Your task to perform on an android device: Open sound settings Image 0: 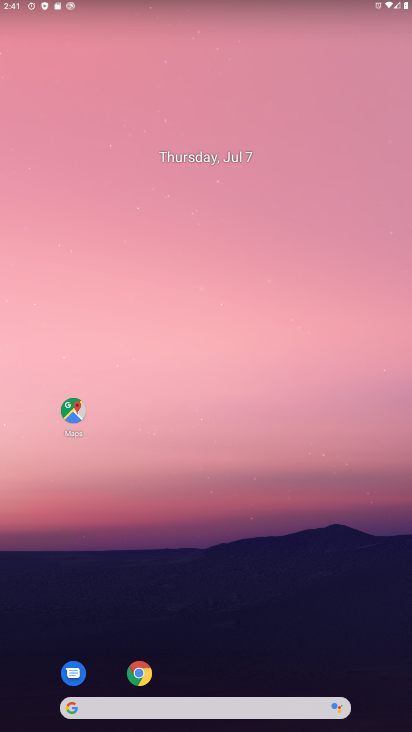
Step 0: drag from (232, 662) to (396, 10)
Your task to perform on an android device: Open sound settings Image 1: 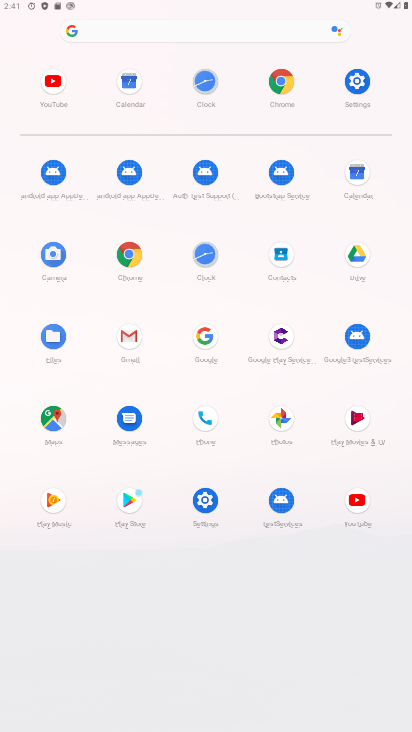
Step 1: click (208, 492)
Your task to perform on an android device: Open sound settings Image 2: 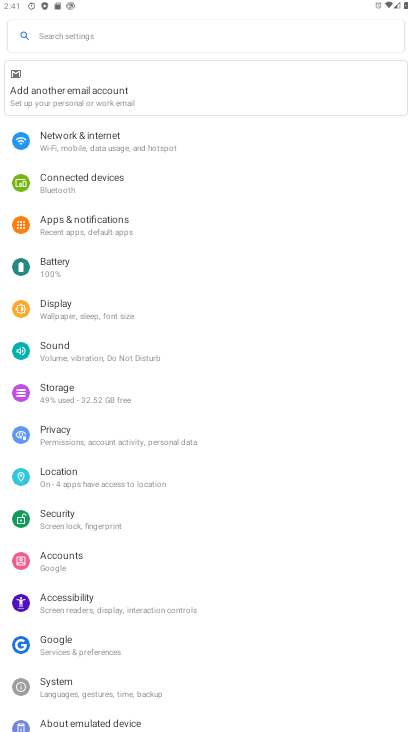
Step 2: drag from (186, 474) to (186, 238)
Your task to perform on an android device: Open sound settings Image 3: 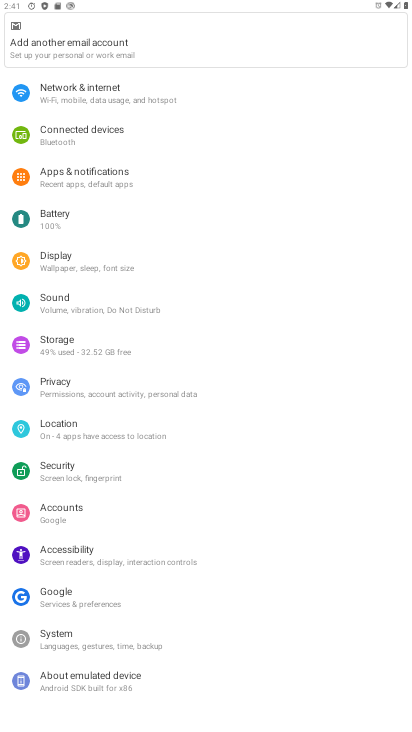
Step 3: click (88, 291)
Your task to perform on an android device: Open sound settings Image 4: 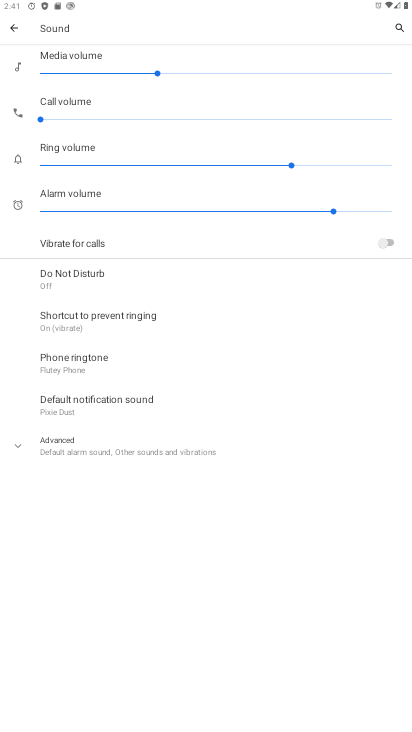
Step 4: click (78, 458)
Your task to perform on an android device: Open sound settings Image 5: 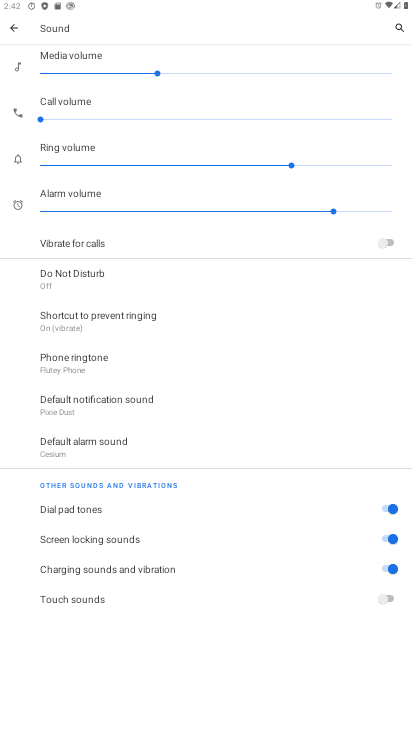
Step 5: task complete